Your task to perform on an android device: add a contact Image 0: 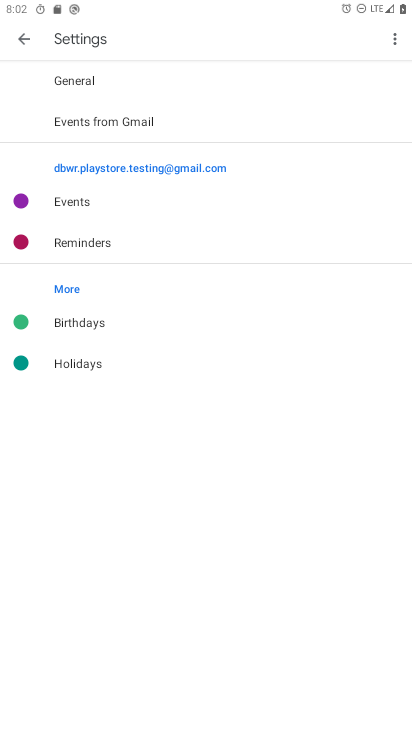
Step 0: press home button
Your task to perform on an android device: add a contact Image 1: 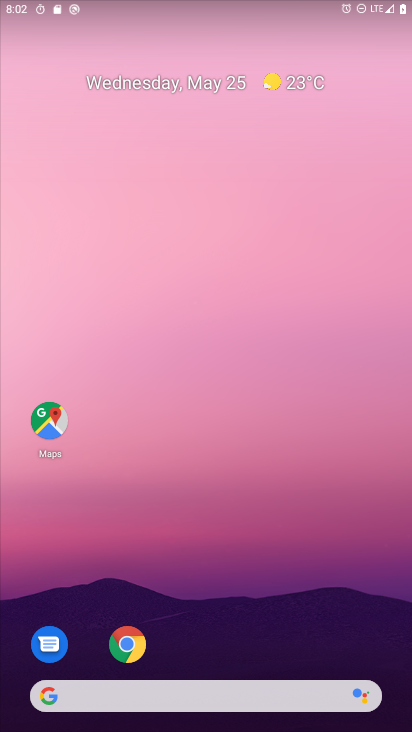
Step 1: drag from (333, 616) to (288, 169)
Your task to perform on an android device: add a contact Image 2: 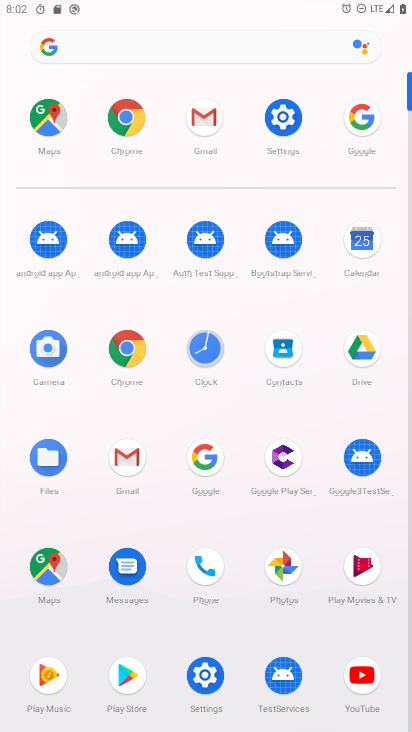
Step 2: click (289, 358)
Your task to perform on an android device: add a contact Image 3: 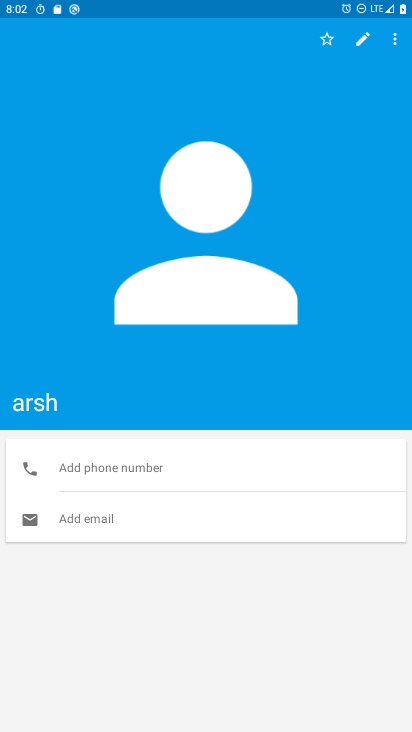
Step 3: press back button
Your task to perform on an android device: add a contact Image 4: 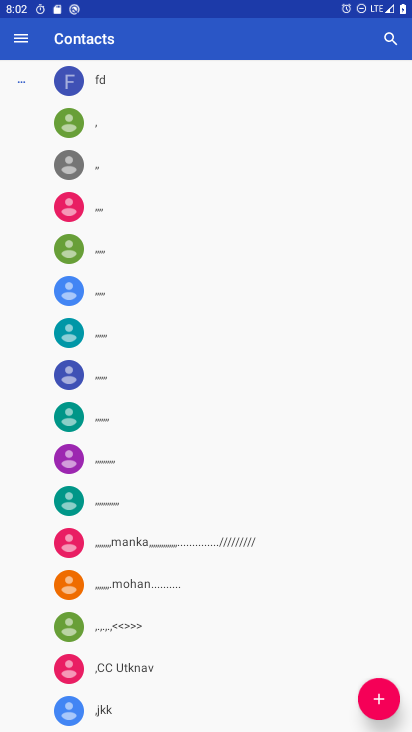
Step 4: click (369, 702)
Your task to perform on an android device: add a contact Image 5: 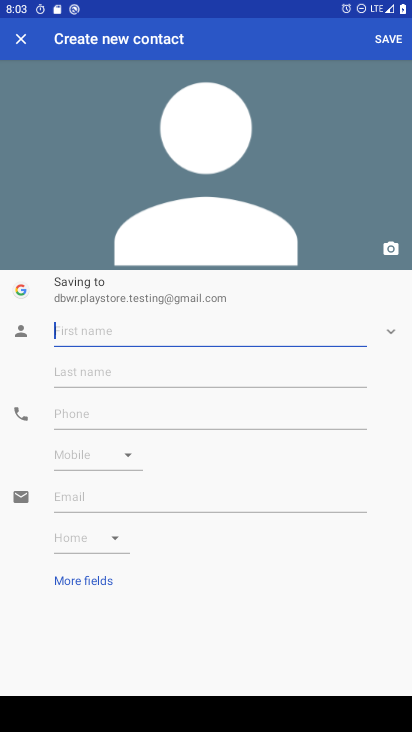
Step 5: type "vinod"
Your task to perform on an android device: add a contact Image 6: 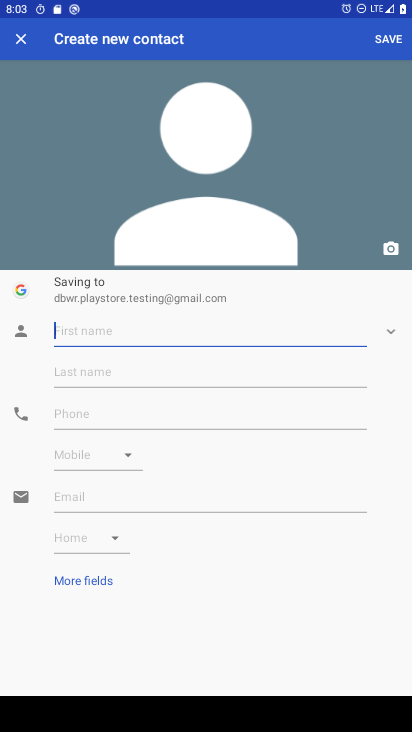
Step 6: click (389, 40)
Your task to perform on an android device: add a contact Image 7: 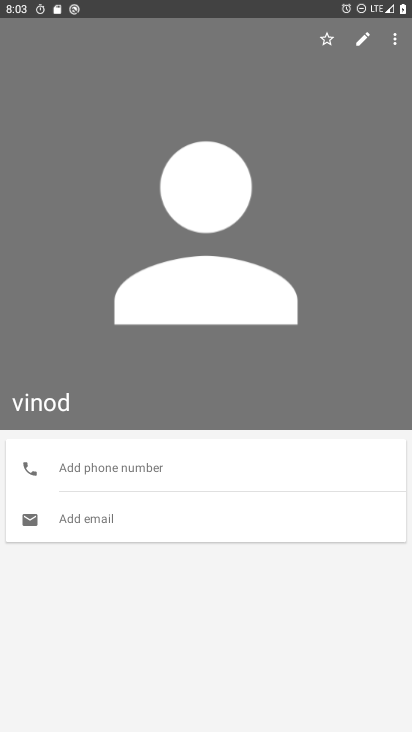
Step 7: task complete